Your task to perform on an android device: What's the weather going to be this weekend? Image 0: 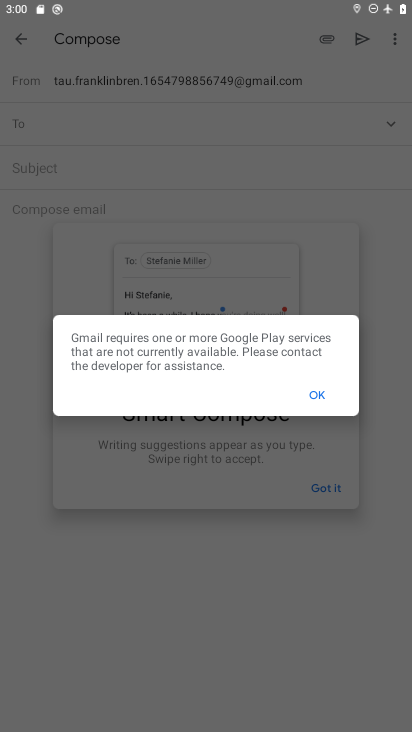
Step 0: press home button
Your task to perform on an android device: What's the weather going to be this weekend? Image 1: 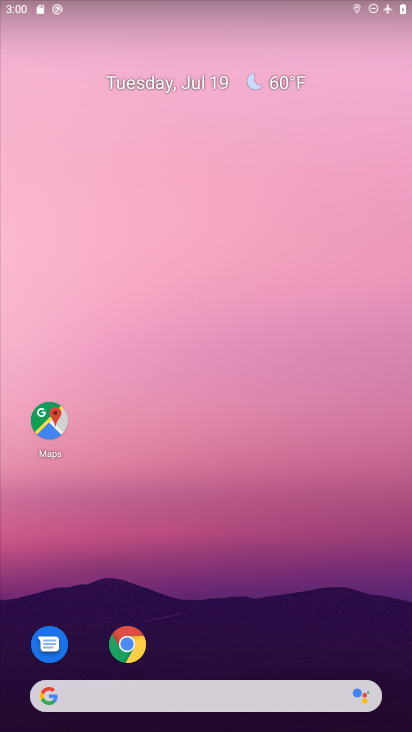
Step 1: click (208, 683)
Your task to perform on an android device: What's the weather going to be this weekend? Image 2: 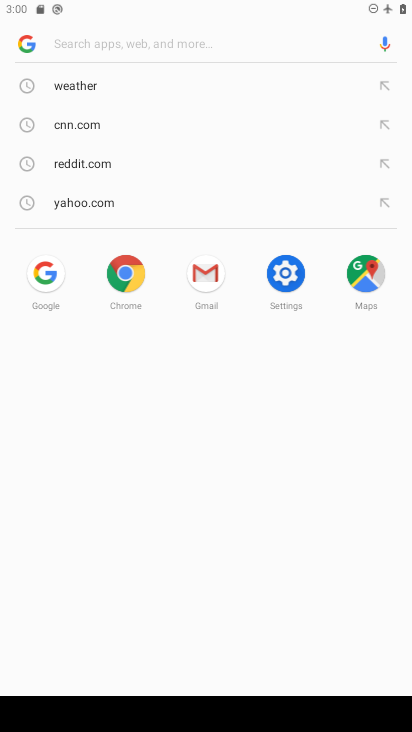
Step 2: click (83, 82)
Your task to perform on an android device: What's the weather going to be this weekend? Image 3: 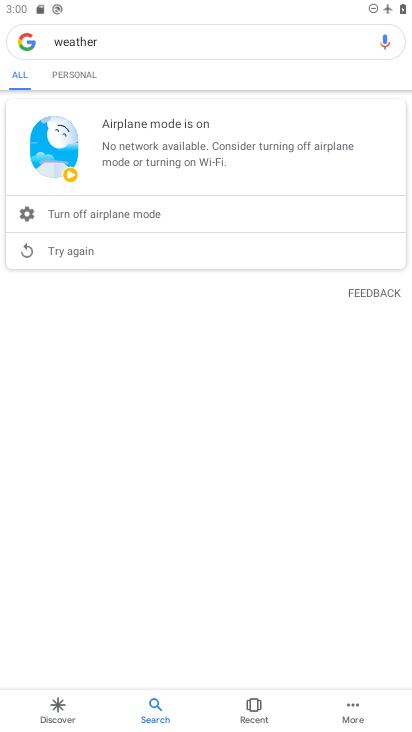
Step 3: click (88, 264)
Your task to perform on an android device: What's the weather going to be this weekend? Image 4: 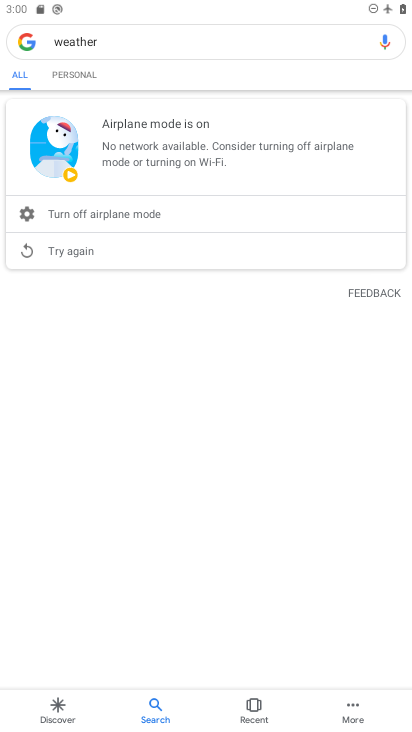
Step 4: task complete